Your task to perform on an android device: Open Chrome and go to the settings page Image 0: 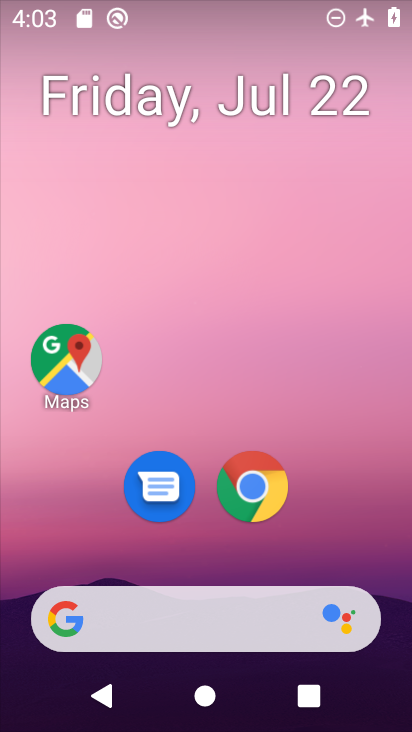
Step 0: click (247, 487)
Your task to perform on an android device: Open Chrome and go to the settings page Image 1: 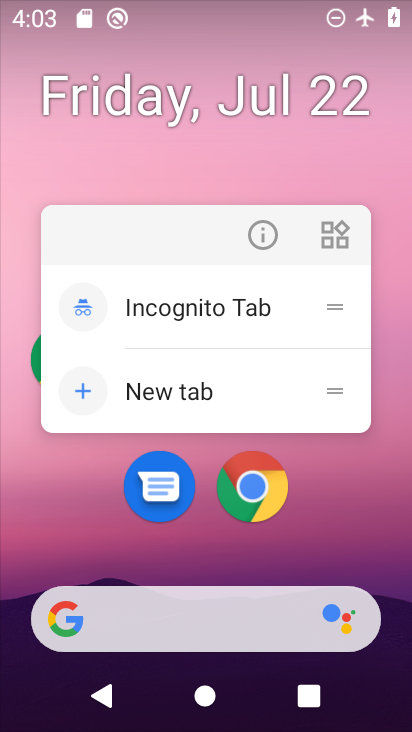
Step 1: click (246, 494)
Your task to perform on an android device: Open Chrome and go to the settings page Image 2: 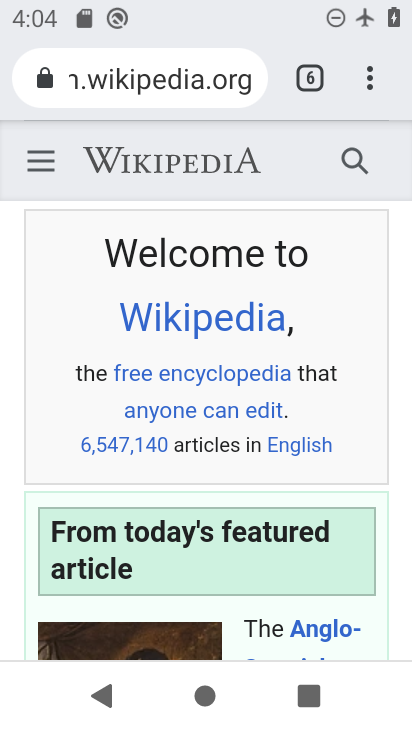
Step 2: task complete